Your task to perform on an android device: turn notification dots off Image 0: 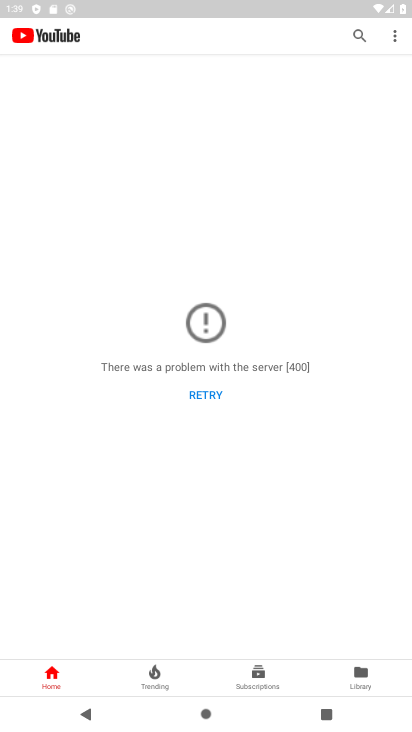
Step 0: press back button
Your task to perform on an android device: turn notification dots off Image 1: 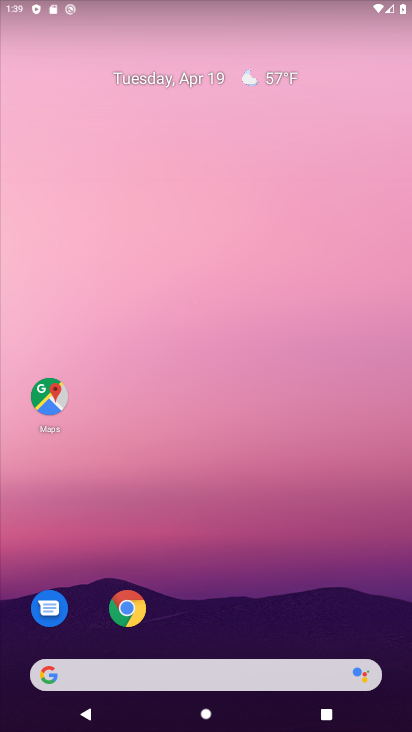
Step 1: drag from (163, 638) to (163, 257)
Your task to perform on an android device: turn notification dots off Image 2: 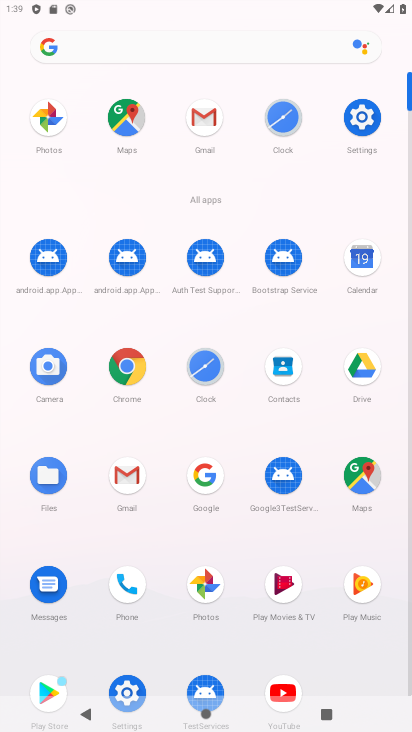
Step 2: click (367, 116)
Your task to perform on an android device: turn notification dots off Image 3: 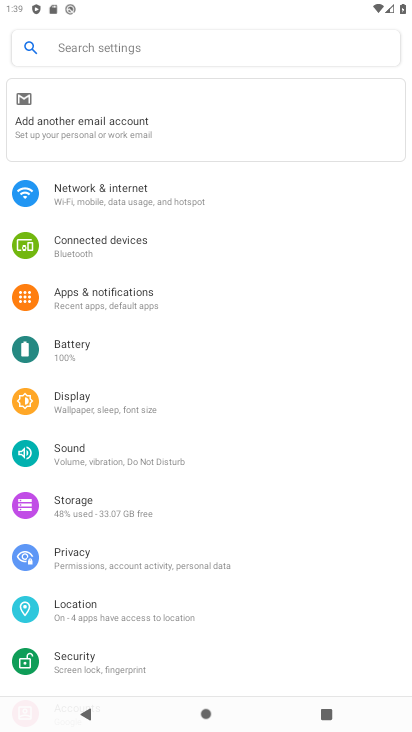
Step 3: click (103, 300)
Your task to perform on an android device: turn notification dots off Image 4: 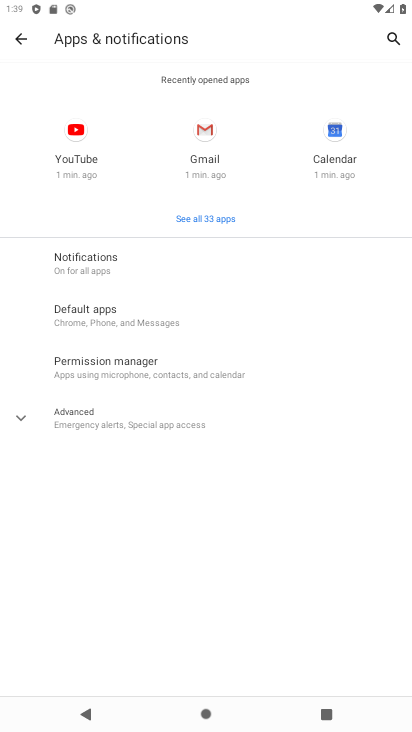
Step 4: click (109, 417)
Your task to perform on an android device: turn notification dots off Image 5: 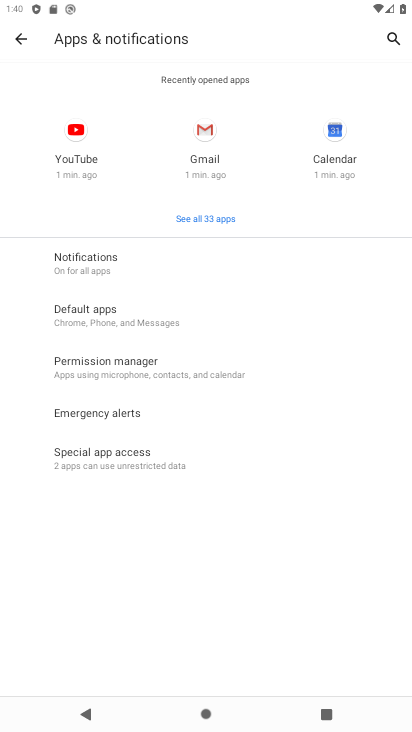
Step 5: click (72, 263)
Your task to perform on an android device: turn notification dots off Image 6: 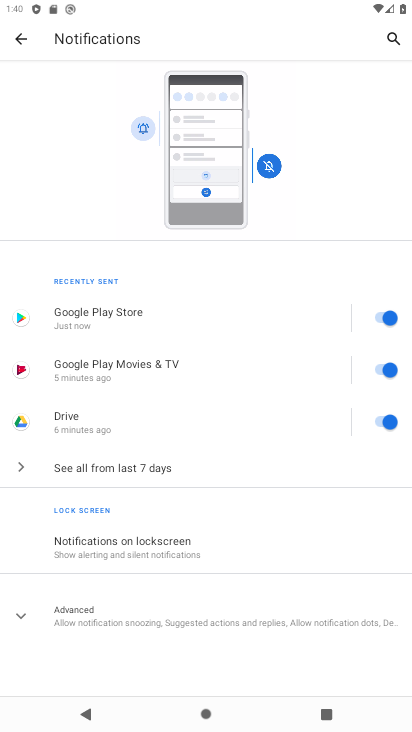
Step 6: click (148, 614)
Your task to perform on an android device: turn notification dots off Image 7: 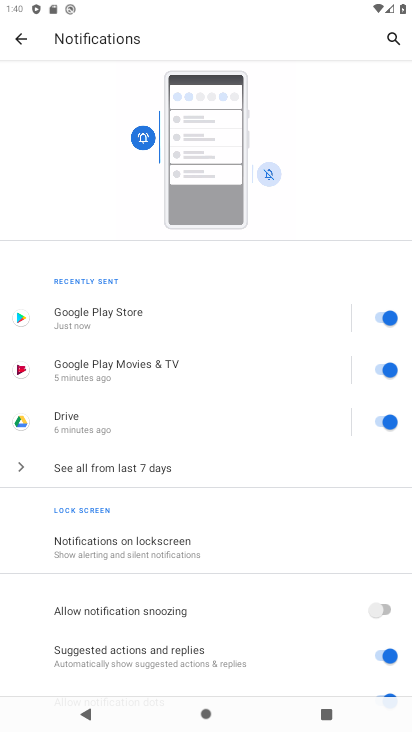
Step 7: drag from (170, 610) to (211, 292)
Your task to perform on an android device: turn notification dots off Image 8: 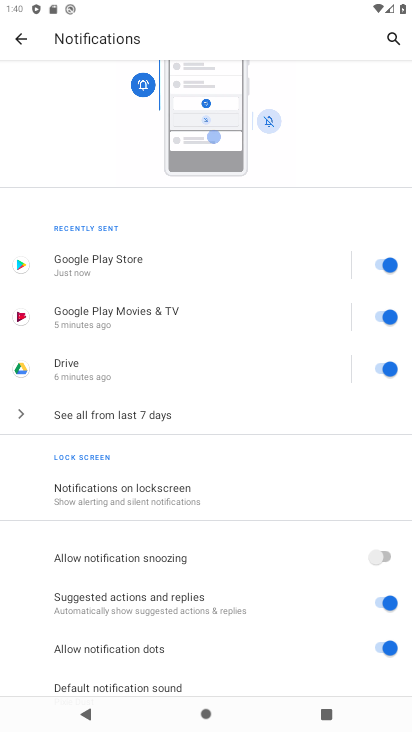
Step 8: drag from (168, 669) to (179, 437)
Your task to perform on an android device: turn notification dots off Image 9: 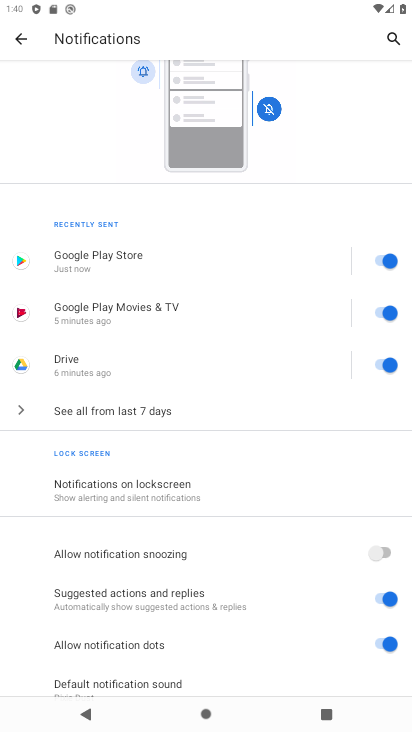
Step 9: click (377, 642)
Your task to perform on an android device: turn notification dots off Image 10: 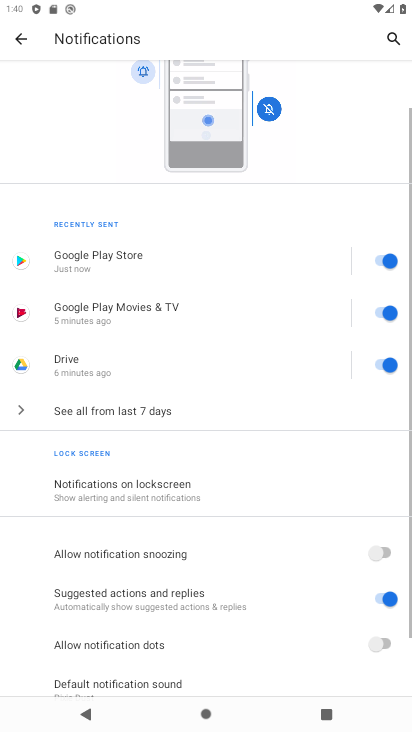
Step 10: task complete